Your task to perform on an android device: Do I have any events today? Image 0: 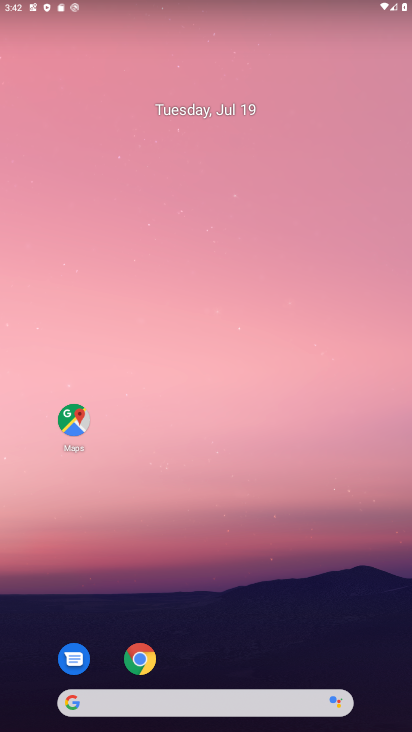
Step 0: drag from (222, 576) to (156, 9)
Your task to perform on an android device: Do I have any events today? Image 1: 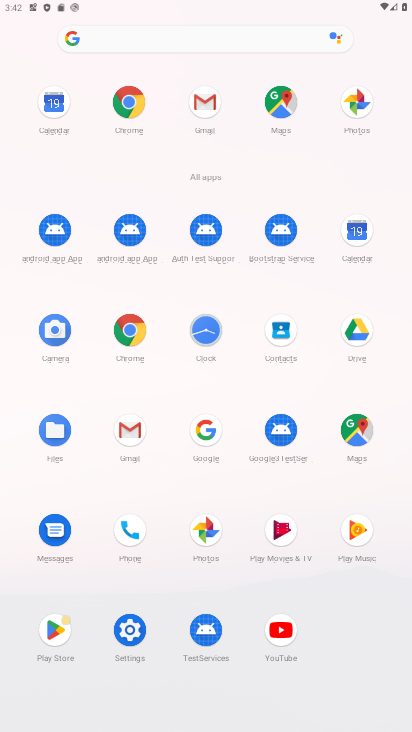
Step 1: click (355, 231)
Your task to perform on an android device: Do I have any events today? Image 2: 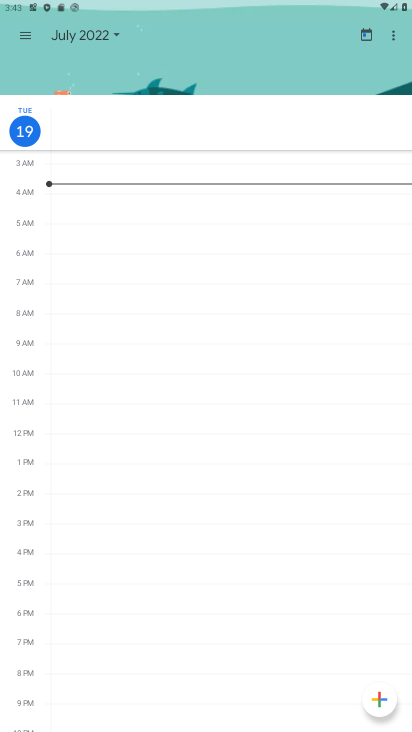
Step 2: click (79, 35)
Your task to perform on an android device: Do I have any events today? Image 3: 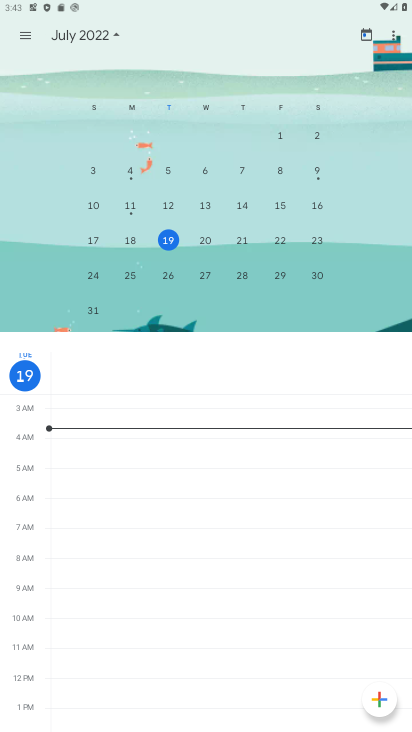
Step 3: task complete